Your task to perform on an android device: Search for vegetarian restaurants on Maps Image 0: 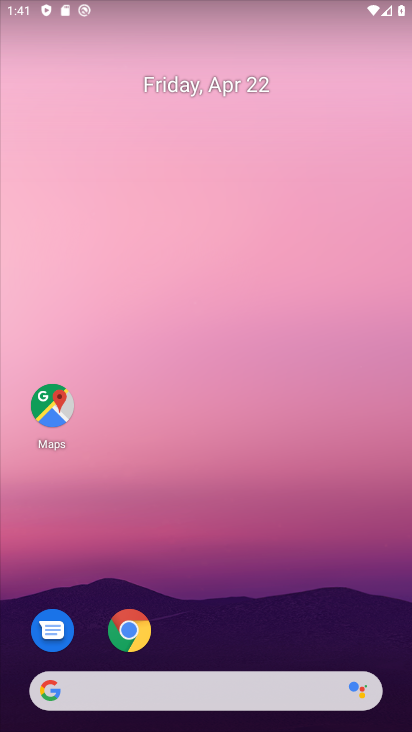
Step 0: drag from (375, 655) to (300, 92)
Your task to perform on an android device: Search for vegetarian restaurants on Maps Image 1: 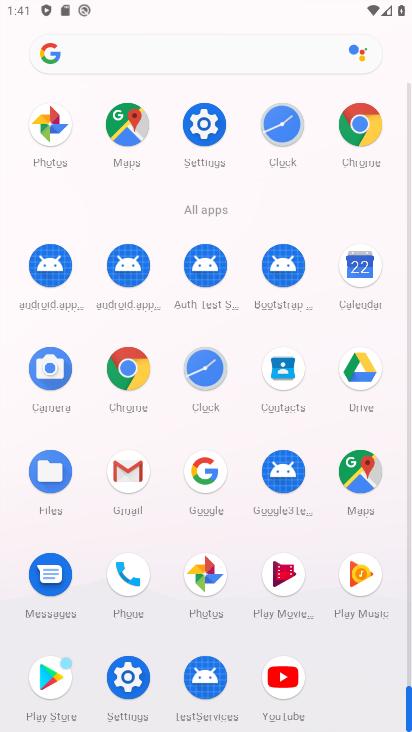
Step 1: click (354, 464)
Your task to perform on an android device: Search for vegetarian restaurants on Maps Image 2: 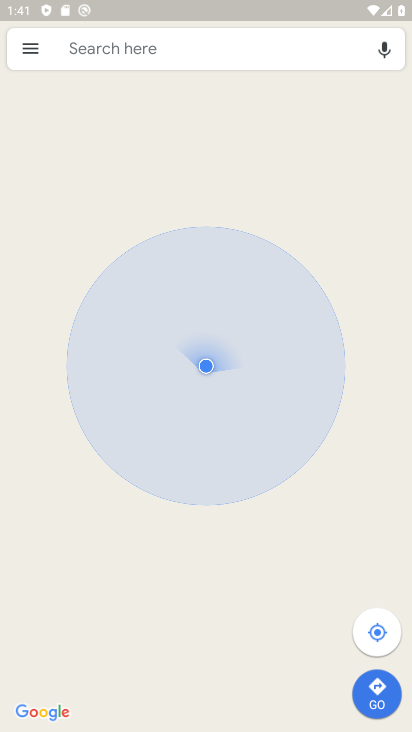
Step 2: click (95, 46)
Your task to perform on an android device: Search for vegetarian restaurants on Maps Image 3: 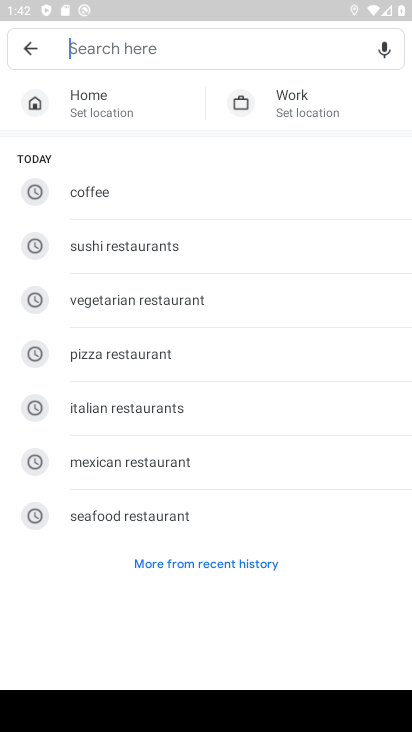
Step 3: type "vegetarian restaurants"
Your task to perform on an android device: Search for vegetarian restaurants on Maps Image 4: 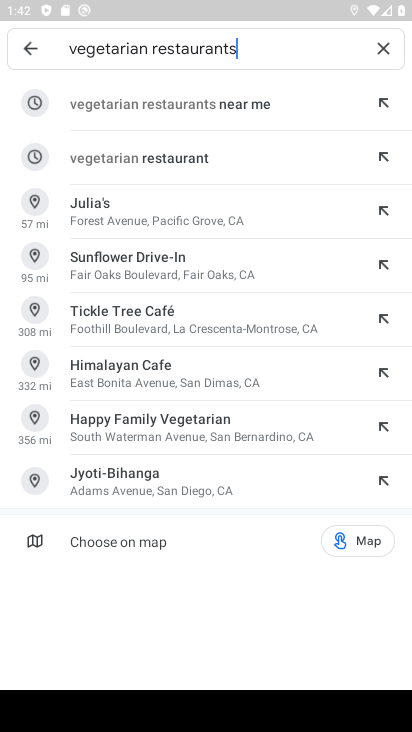
Step 4: click (136, 153)
Your task to perform on an android device: Search for vegetarian restaurants on Maps Image 5: 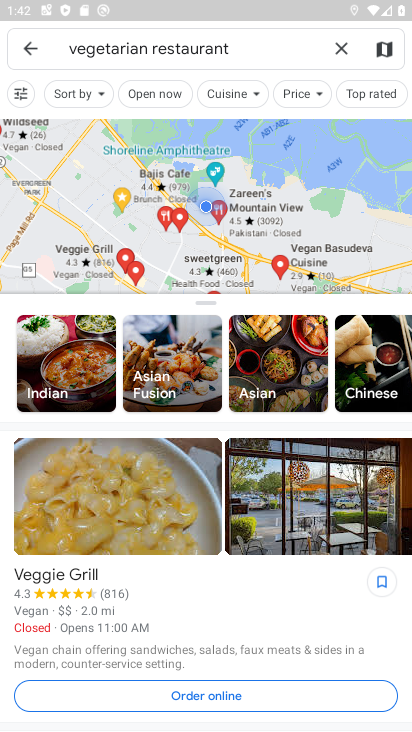
Step 5: task complete